Your task to perform on an android device: see sites visited before in the chrome app Image 0: 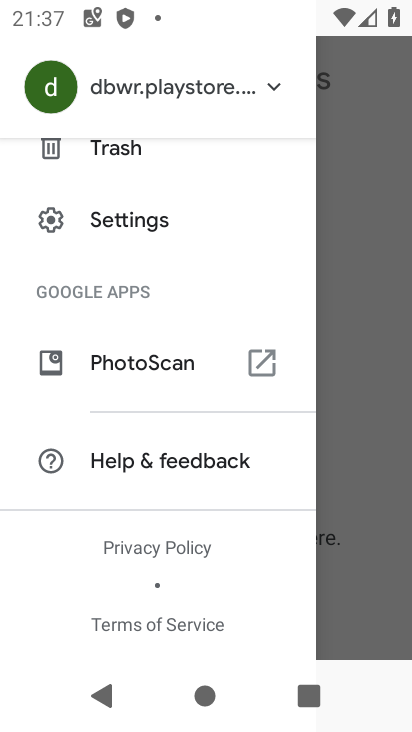
Step 0: press home button
Your task to perform on an android device: see sites visited before in the chrome app Image 1: 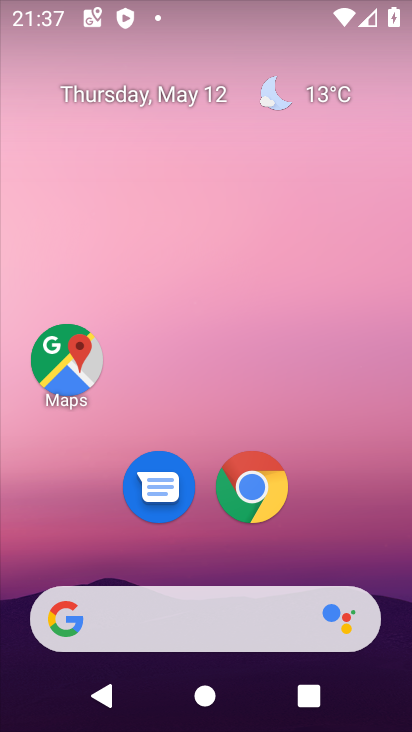
Step 1: click (252, 477)
Your task to perform on an android device: see sites visited before in the chrome app Image 2: 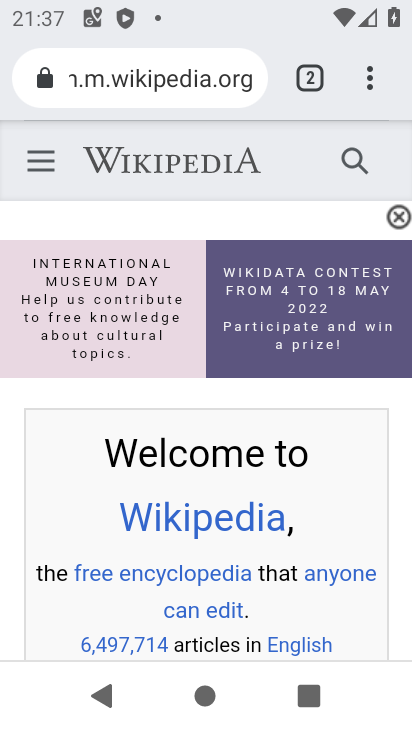
Step 2: click (387, 75)
Your task to perform on an android device: see sites visited before in the chrome app Image 3: 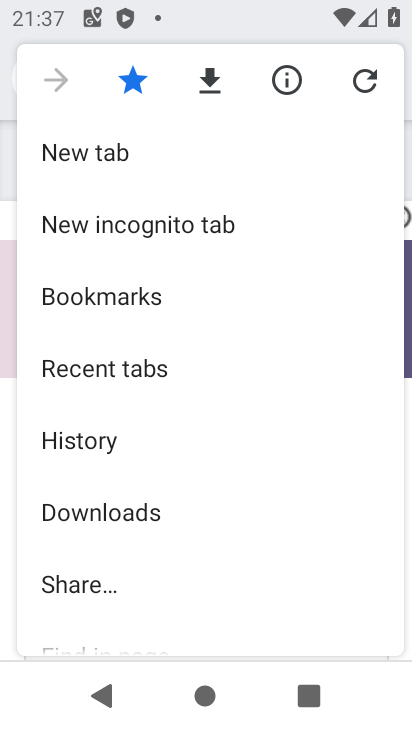
Step 3: click (134, 454)
Your task to perform on an android device: see sites visited before in the chrome app Image 4: 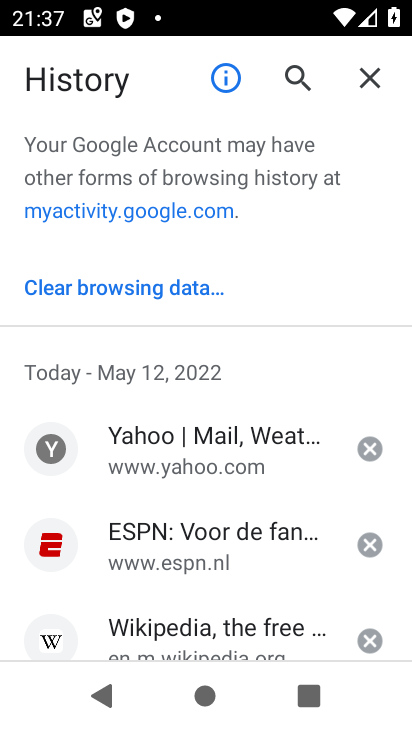
Step 4: task complete